Your task to perform on an android device: turn notification dots off Image 0: 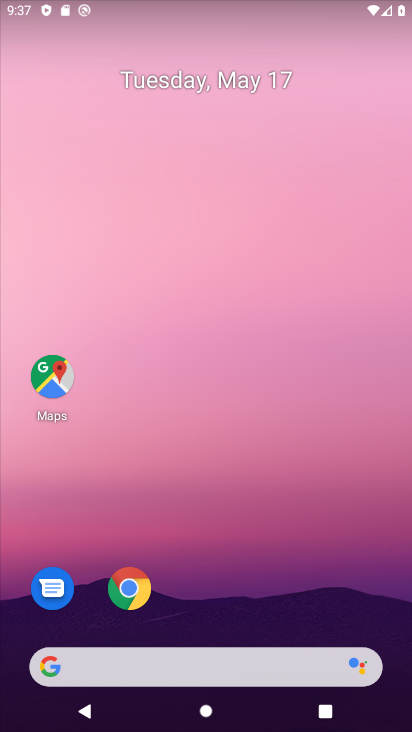
Step 0: drag from (153, 635) to (306, 142)
Your task to perform on an android device: turn notification dots off Image 1: 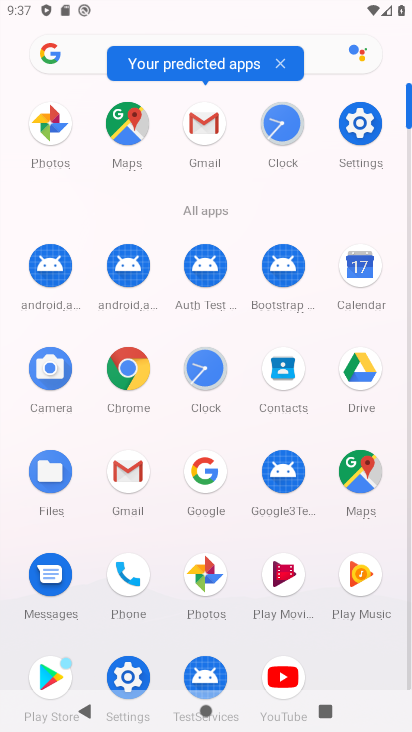
Step 1: drag from (159, 628) to (267, 423)
Your task to perform on an android device: turn notification dots off Image 2: 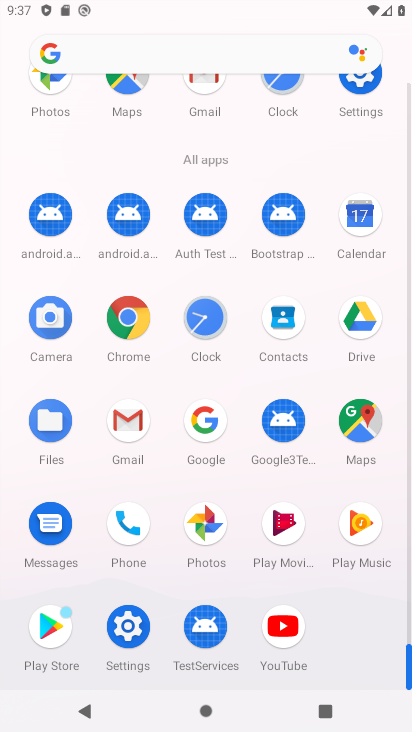
Step 2: click (132, 638)
Your task to perform on an android device: turn notification dots off Image 3: 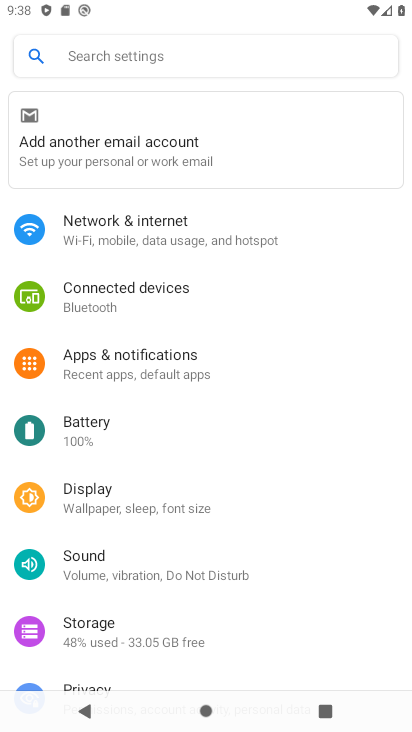
Step 3: drag from (134, 628) to (215, 395)
Your task to perform on an android device: turn notification dots off Image 4: 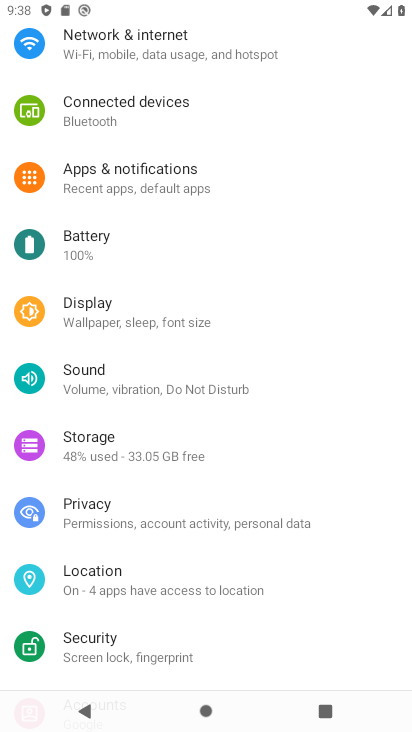
Step 4: click (124, 182)
Your task to perform on an android device: turn notification dots off Image 5: 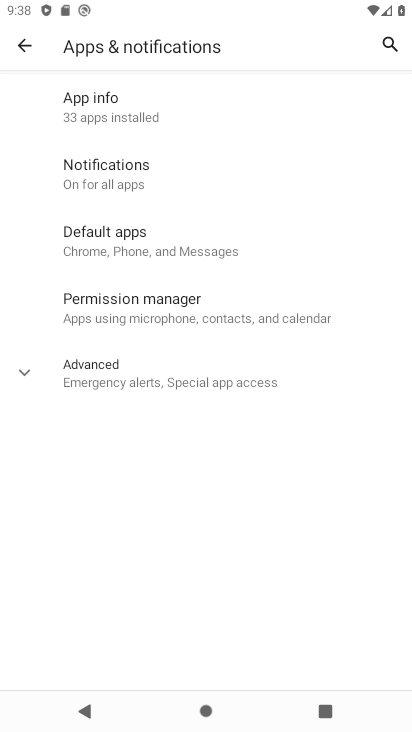
Step 5: click (172, 377)
Your task to perform on an android device: turn notification dots off Image 6: 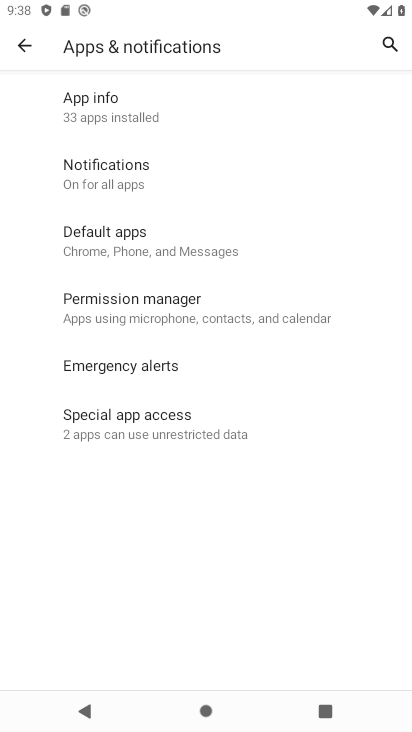
Step 6: click (155, 171)
Your task to perform on an android device: turn notification dots off Image 7: 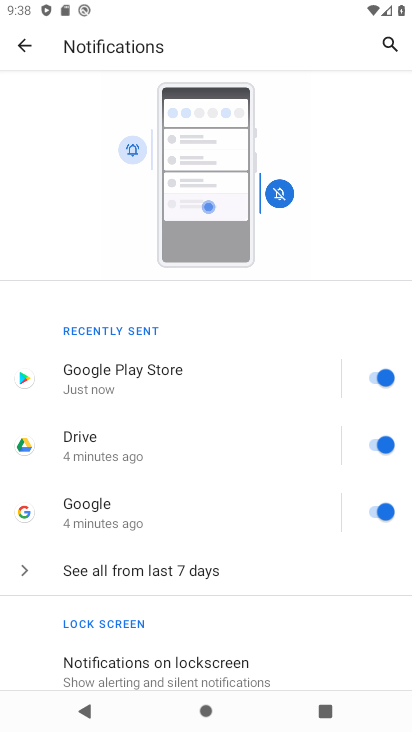
Step 7: drag from (154, 661) to (353, 293)
Your task to perform on an android device: turn notification dots off Image 8: 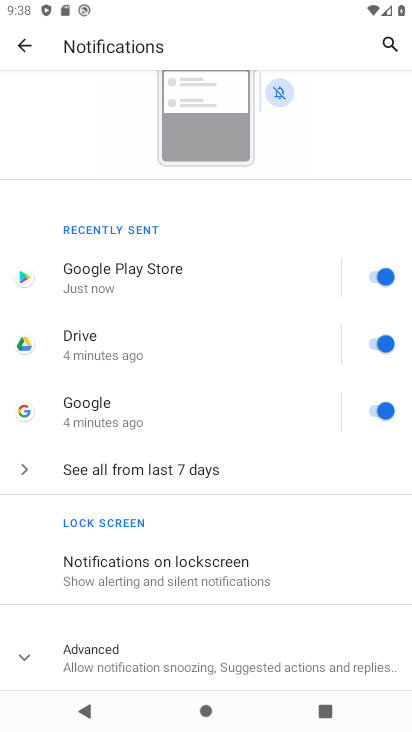
Step 8: click (215, 653)
Your task to perform on an android device: turn notification dots off Image 9: 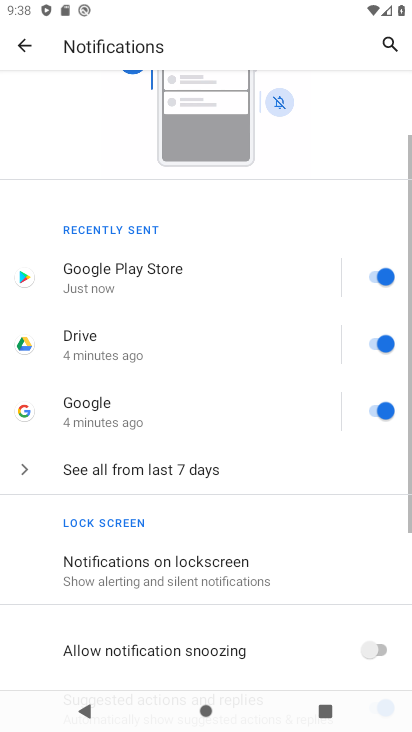
Step 9: drag from (215, 653) to (370, 251)
Your task to perform on an android device: turn notification dots off Image 10: 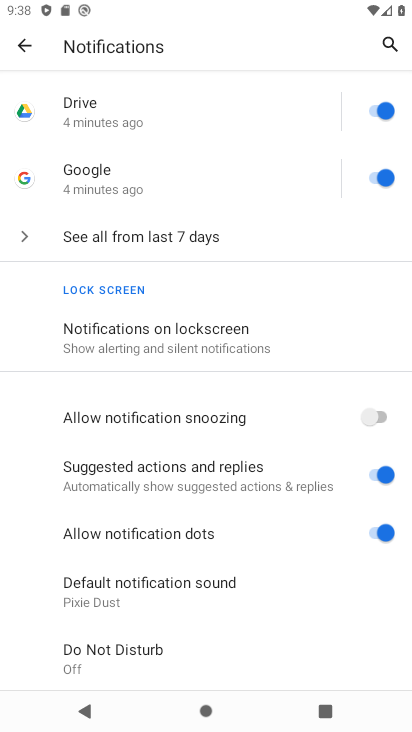
Step 10: click (372, 527)
Your task to perform on an android device: turn notification dots off Image 11: 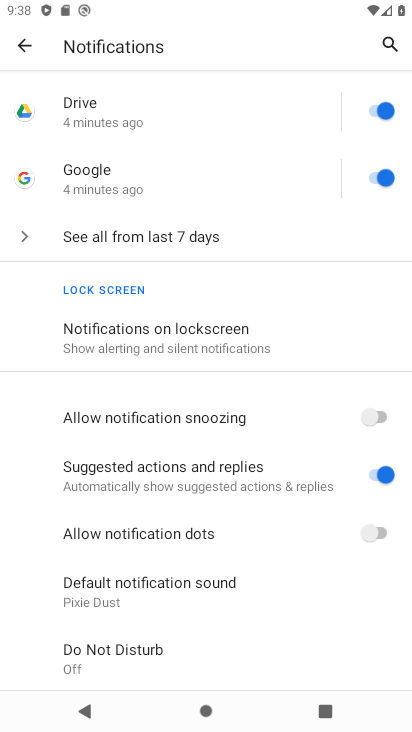
Step 11: task complete